Your task to perform on an android device: Open Google Chrome and open the bookmarks view Image 0: 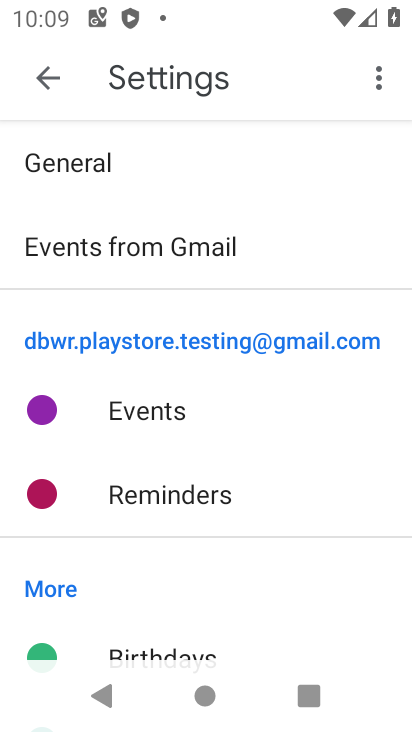
Step 0: press home button
Your task to perform on an android device: Open Google Chrome and open the bookmarks view Image 1: 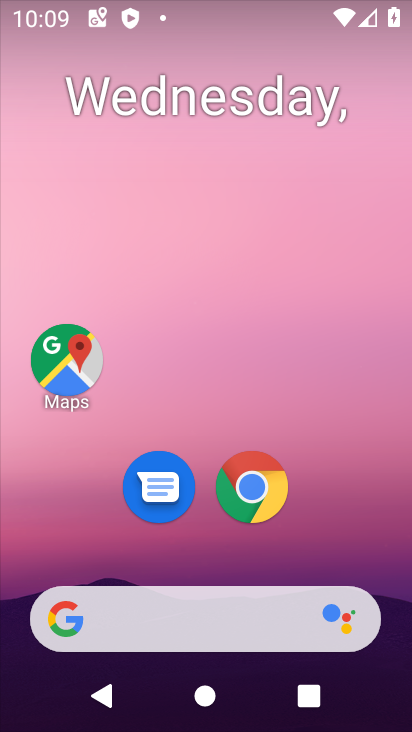
Step 1: click (256, 475)
Your task to perform on an android device: Open Google Chrome and open the bookmarks view Image 2: 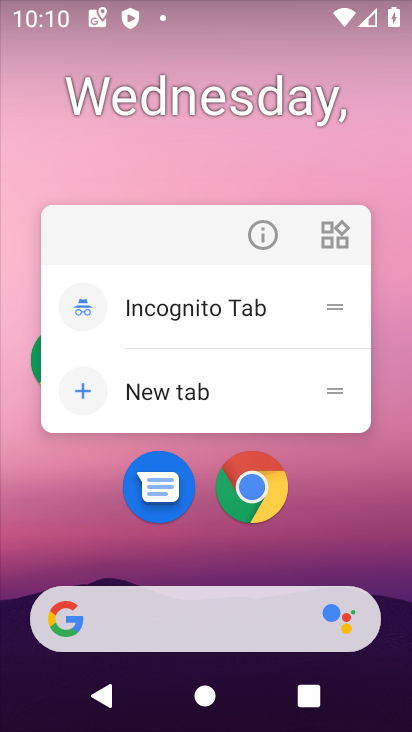
Step 2: click (236, 502)
Your task to perform on an android device: Open Google Chrome and open the bookmarks view Image 3: 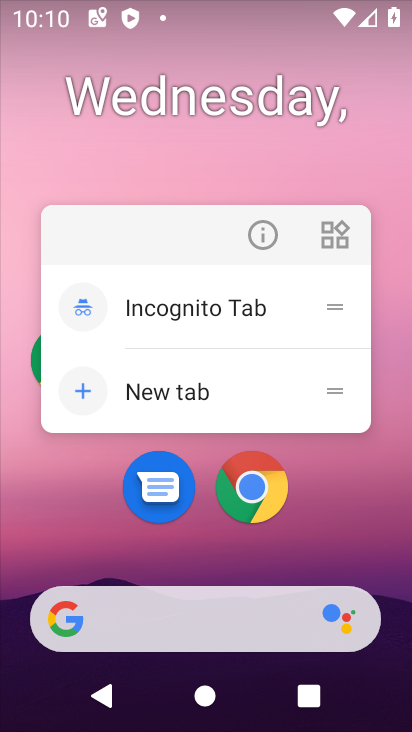
Step 3: click (236, 502)
Your task to perform on an android device: Open Google Chrome and open the bookmarks view Image 4: 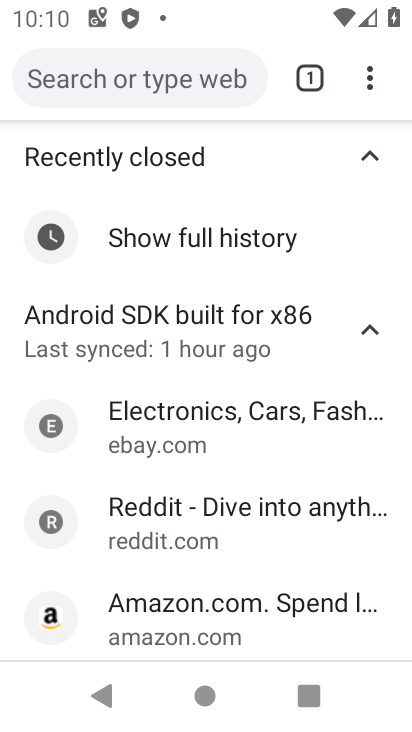
Step 4: click (375, 73)
Your task to perform on an android device: Open Google Chrome and open the bookmarks view Image 5: 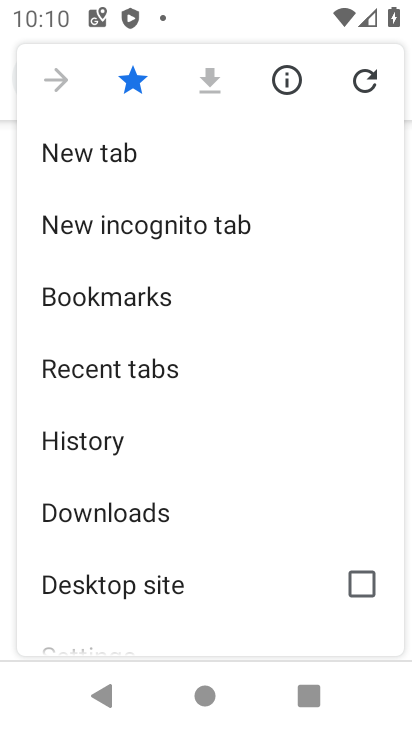
Step 5: click (172, 301)
Your task to perform on an android device: Open Google Chrome and open the bookmarks view Image 6: 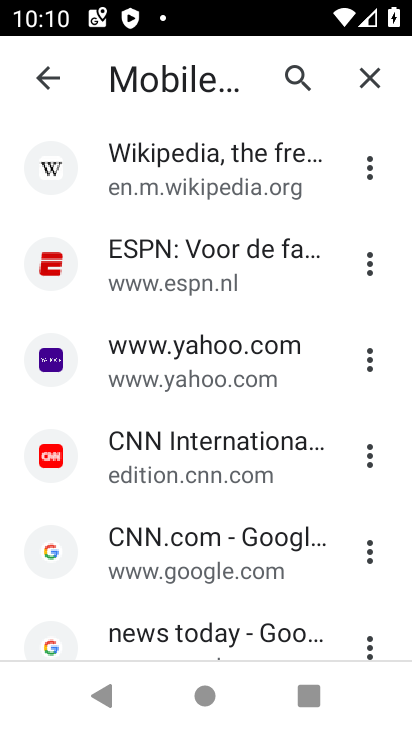
Step 6: task complete